Your task to perform on an android device: Open a new tab in Chrome Image 0: 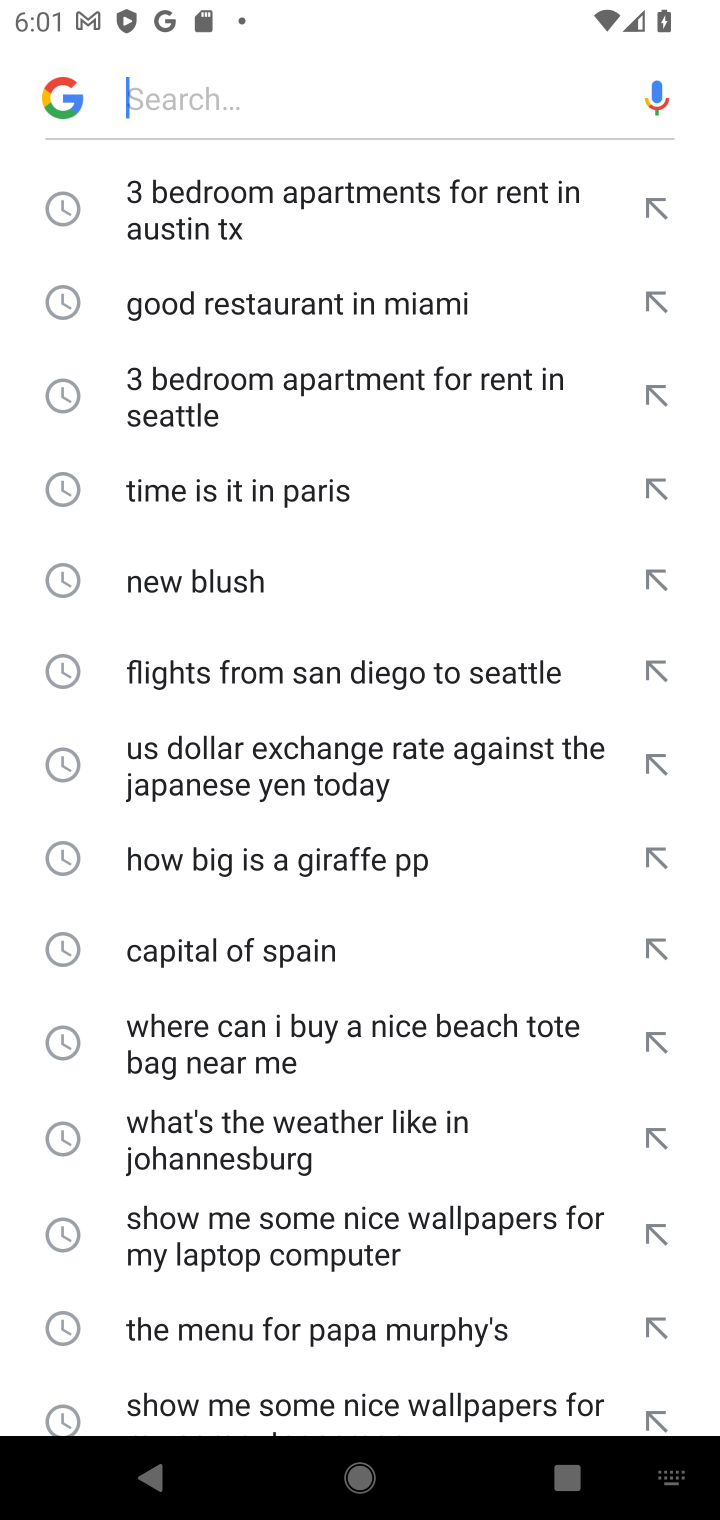
Step 0: press home button
Your task to perform on an android device: Open a new tab in Chrome Image 1: 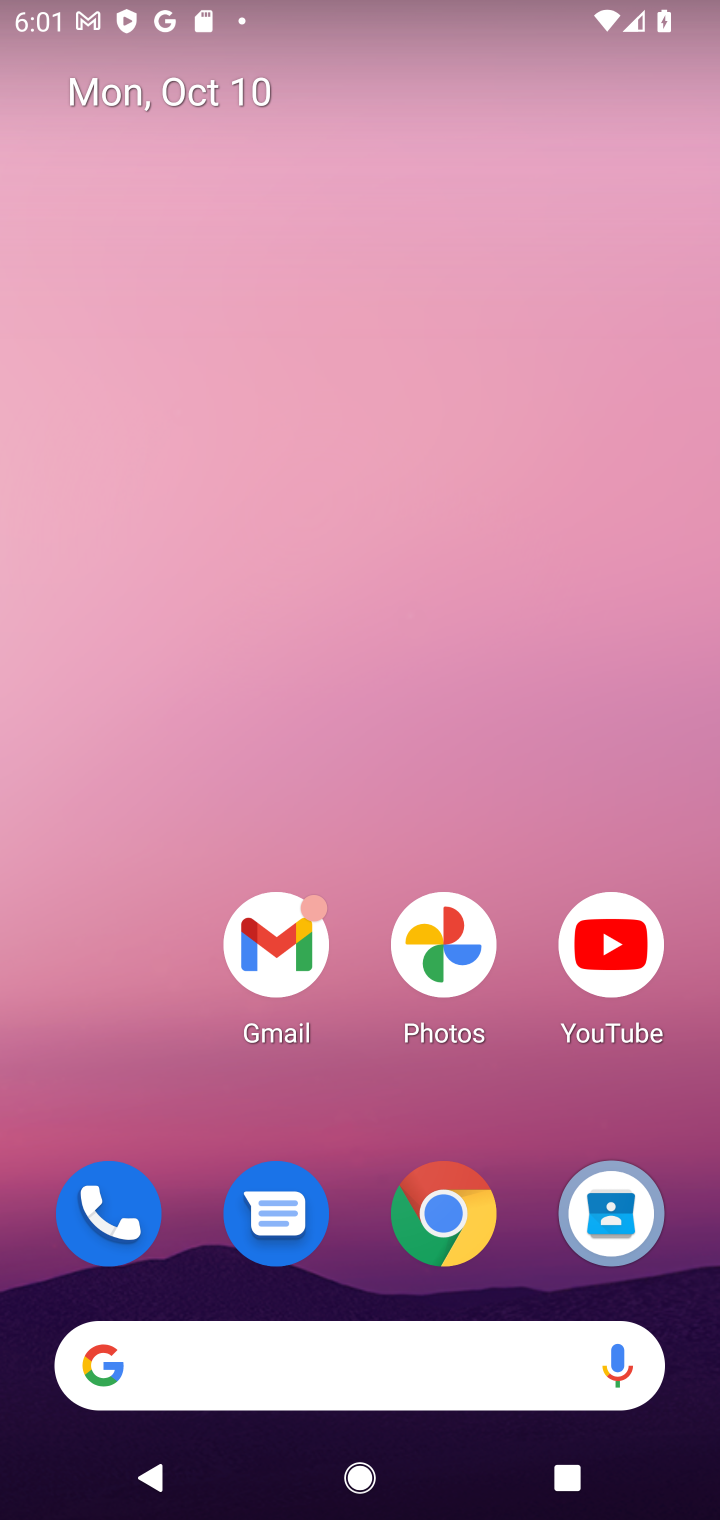
Step 1: click (457, 1225)
Your task to perform on an android device: Open a new tab in Chrome Image 2: 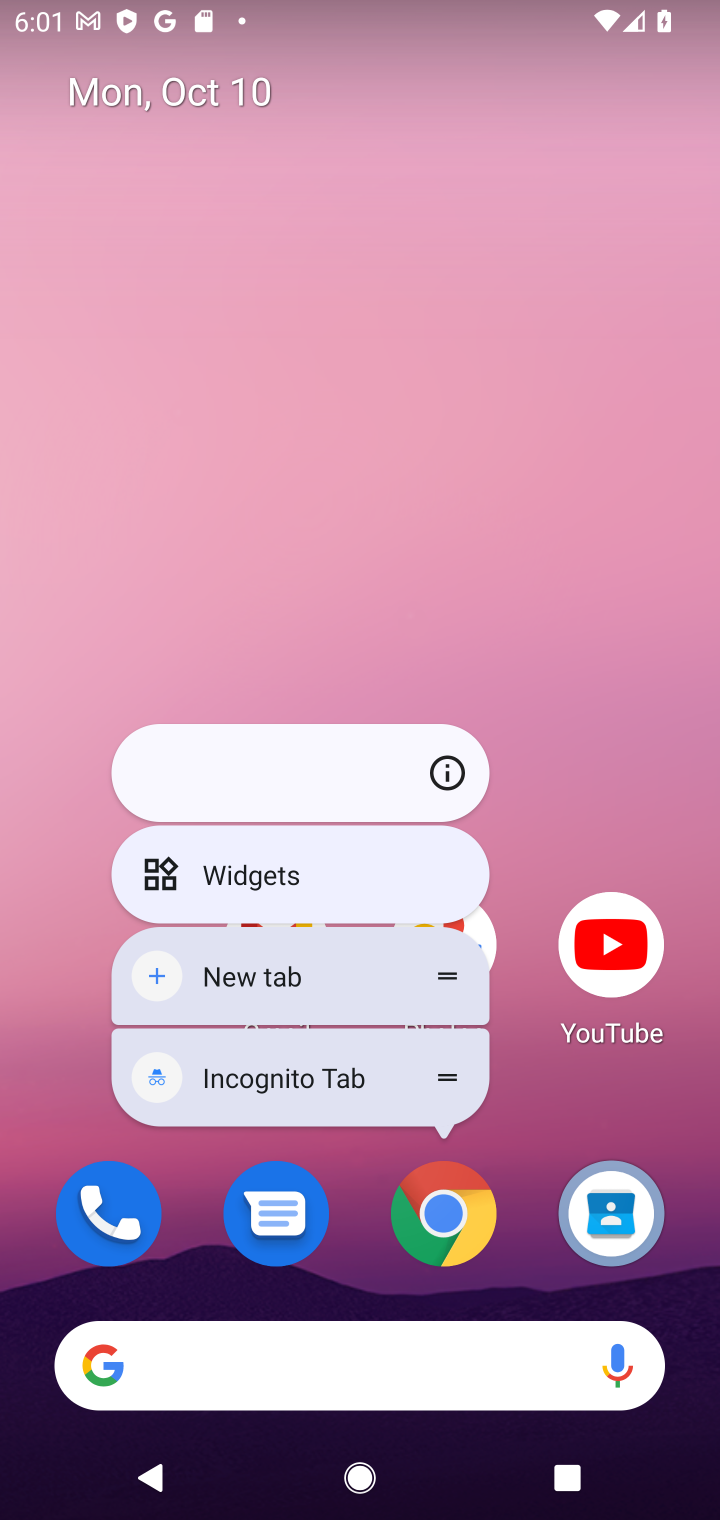
Step 2: click (457, 1225)
Your task to perform on an android device: Open a new tab in Chrome Image 3: 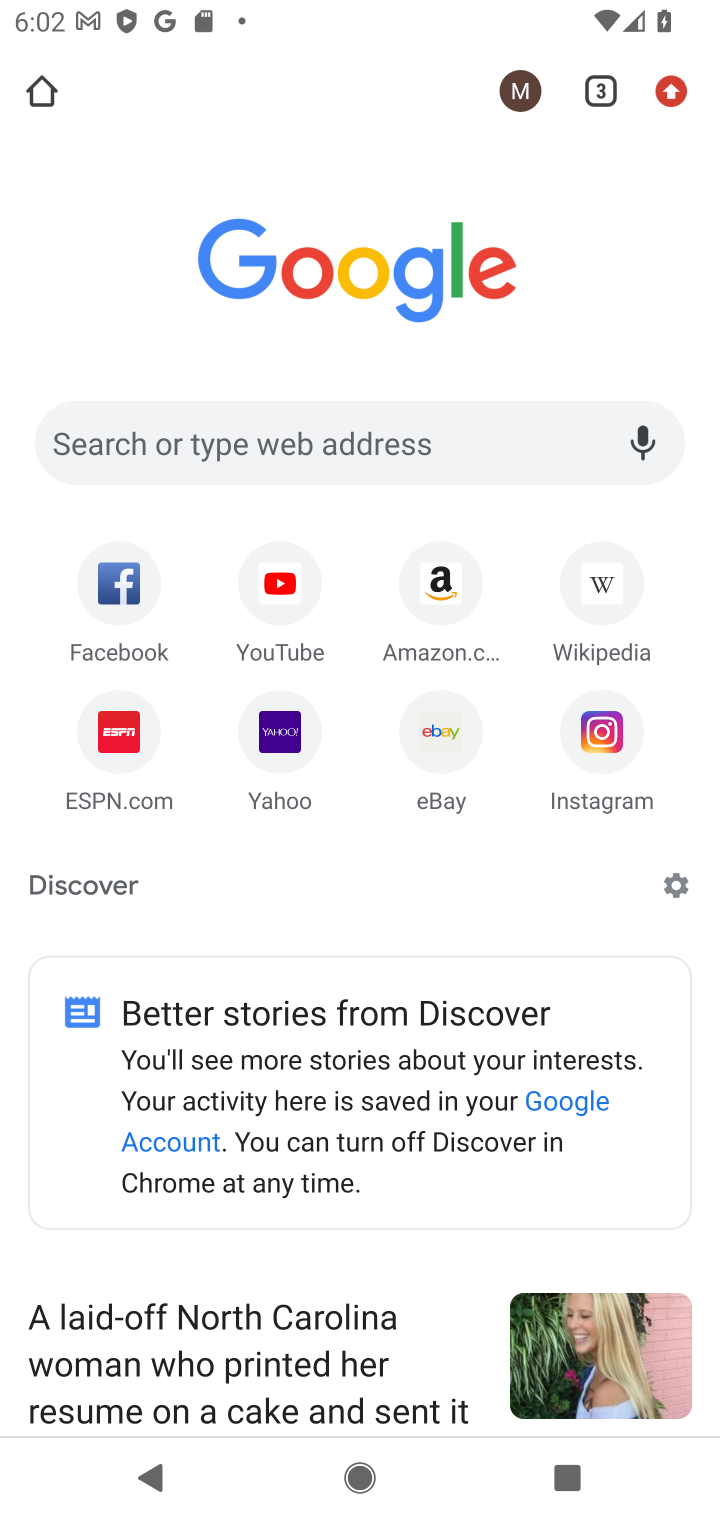
Step 3: click (610, 93)
Your task to perform on an android device: Open a new tab in Chrome Image 4: 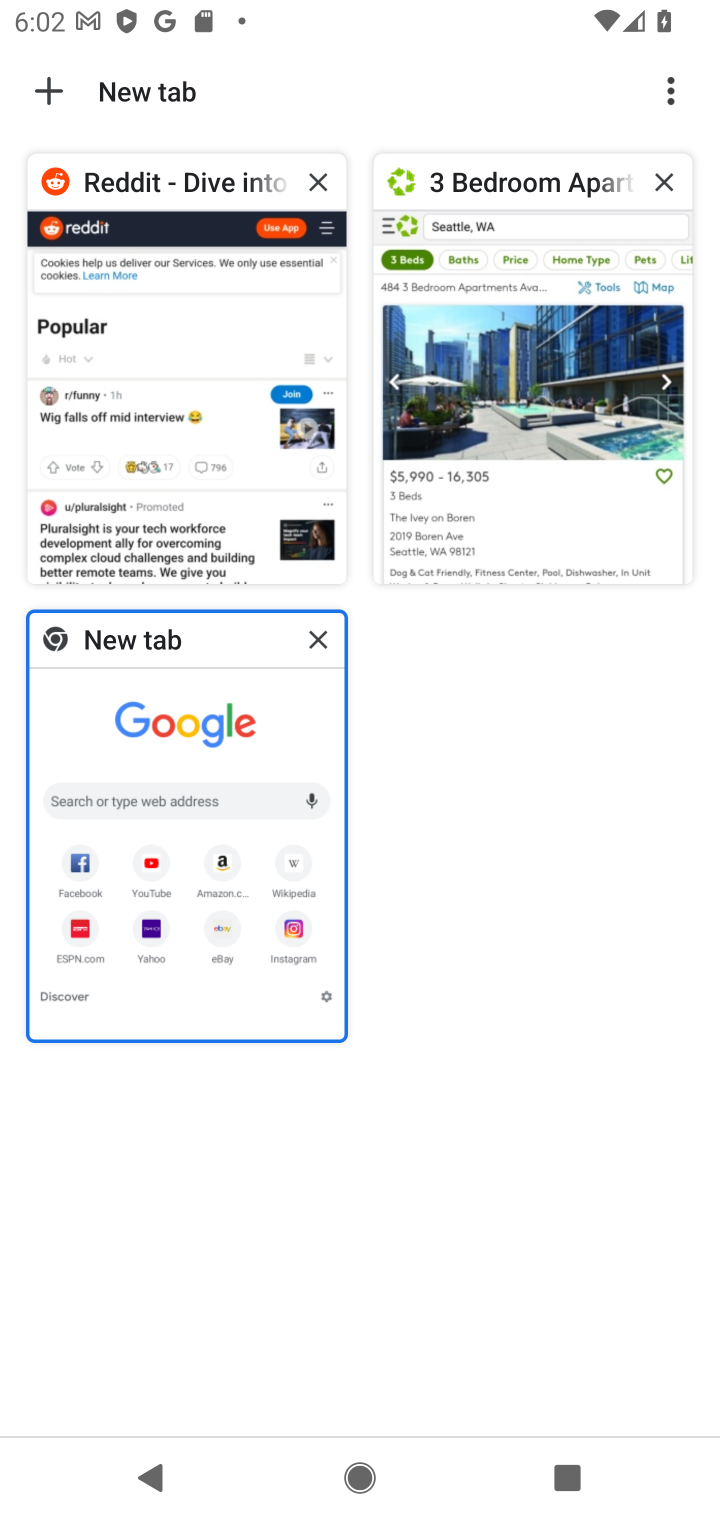
Step 4: click (52, 95)
Your task to perform on an android device: Open a new tab in Chrome Image 5: 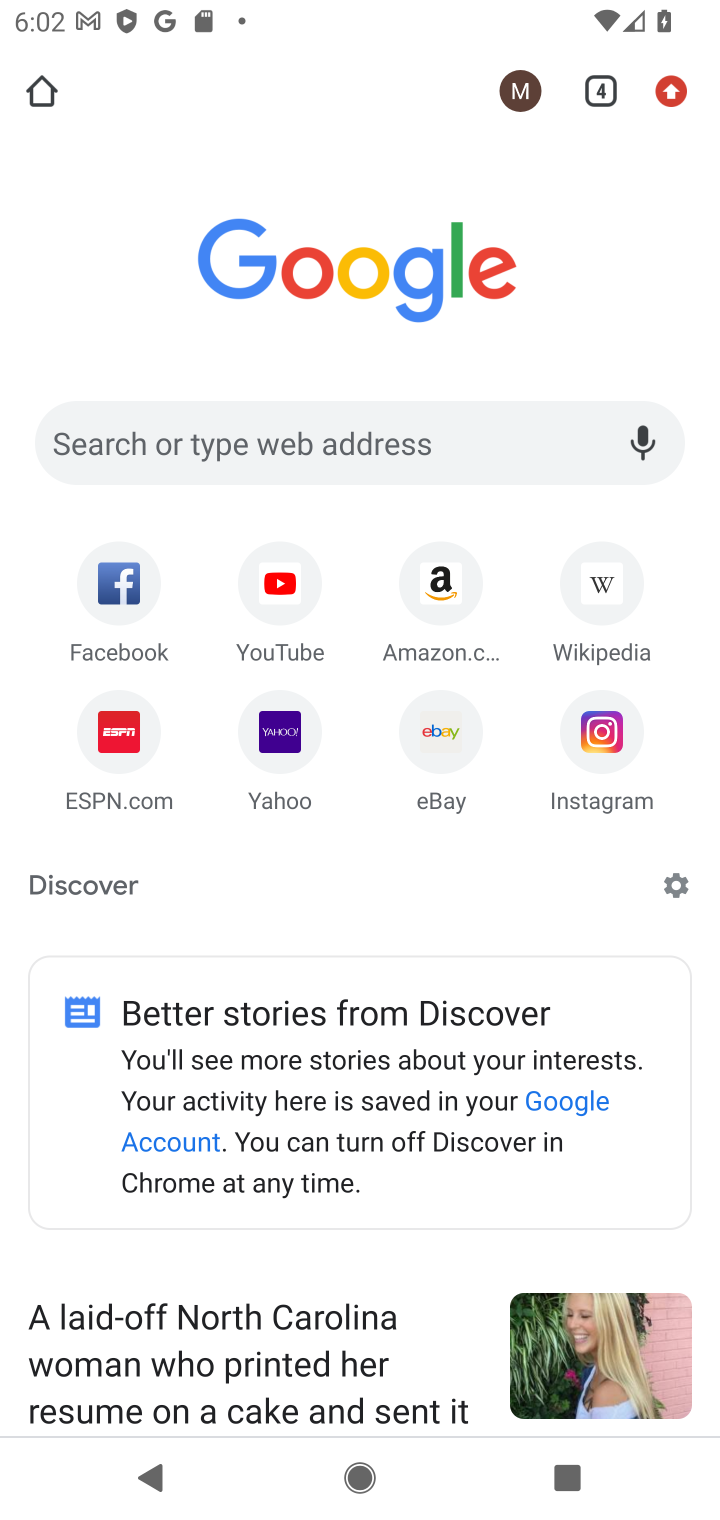
Step 5: task complete